Your task to perform on an android device: Open Reddit.com Image 0: 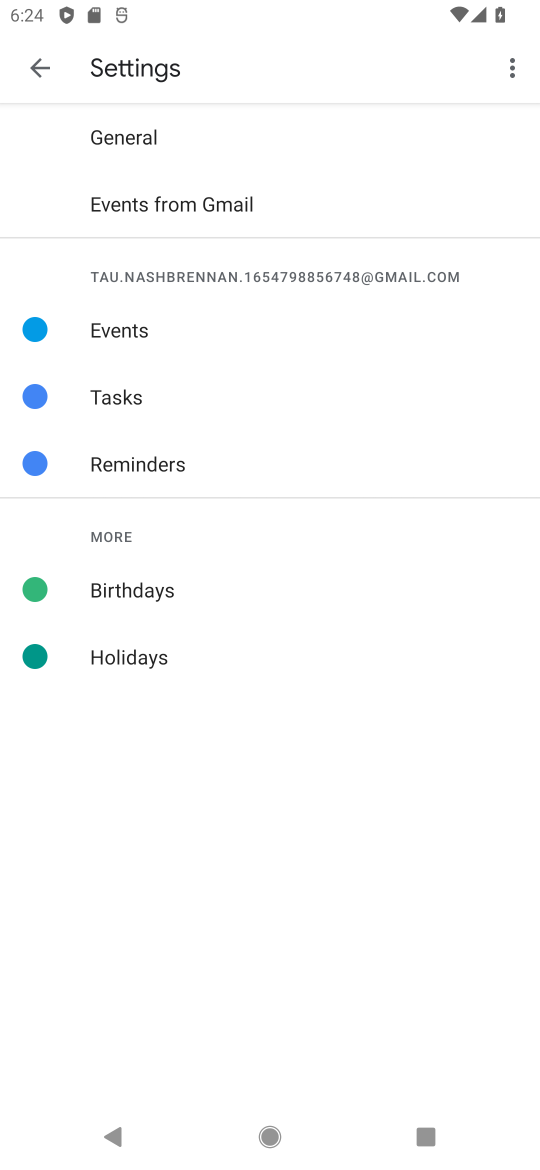
Step 0: press home button
Your task to perform on an android device: Open Reddit.com Image 1: 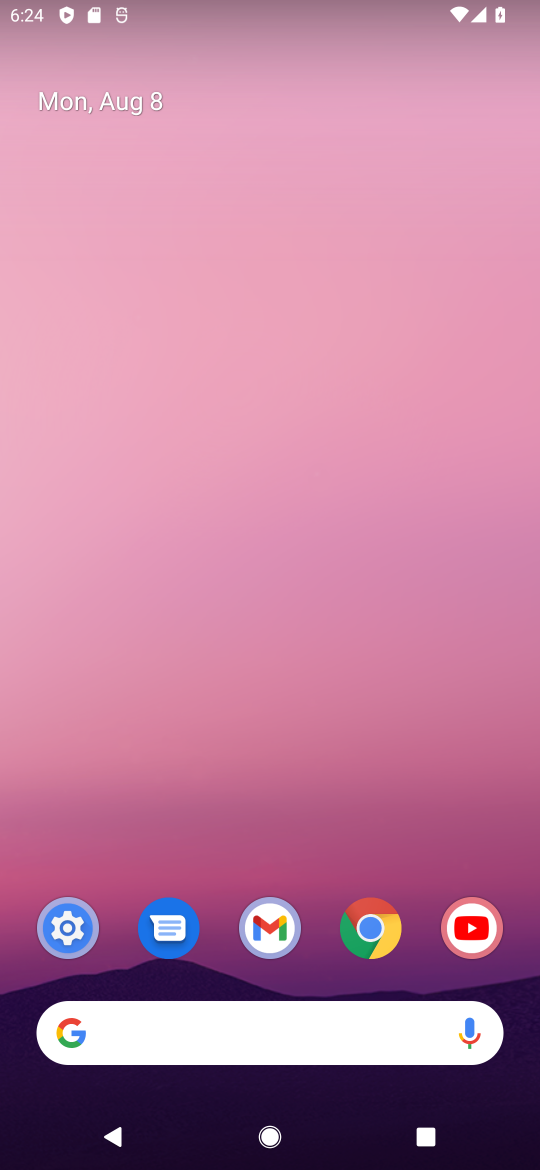
Step 1: click (372, 935)
Your task to perform on an android device: Open Reddit.com Image 2: 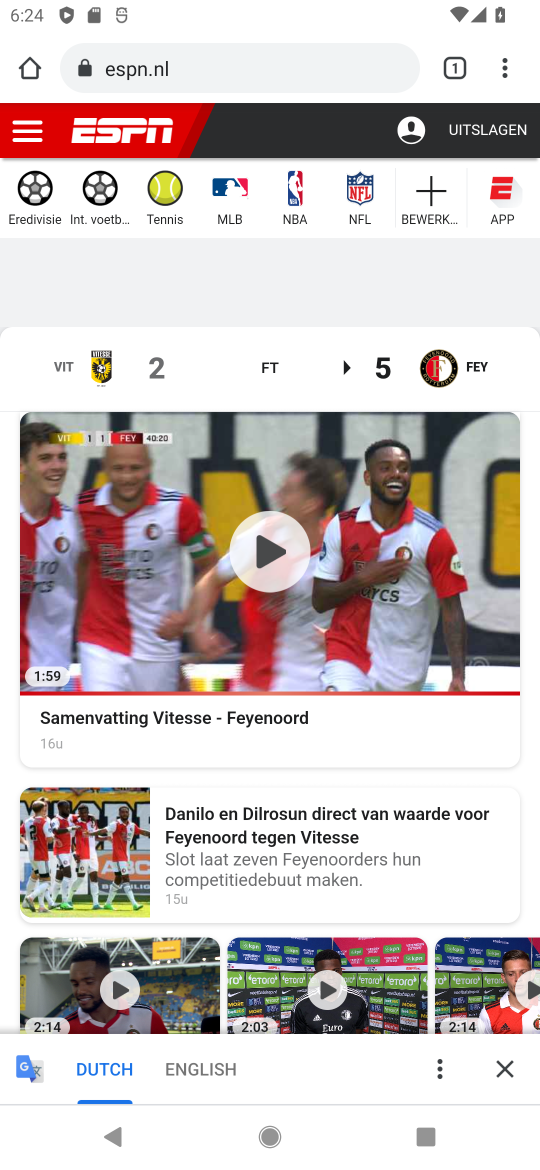
Step 2: click (236, 64)
Your task to perform on an android device: Open Reddit.com Image 3: 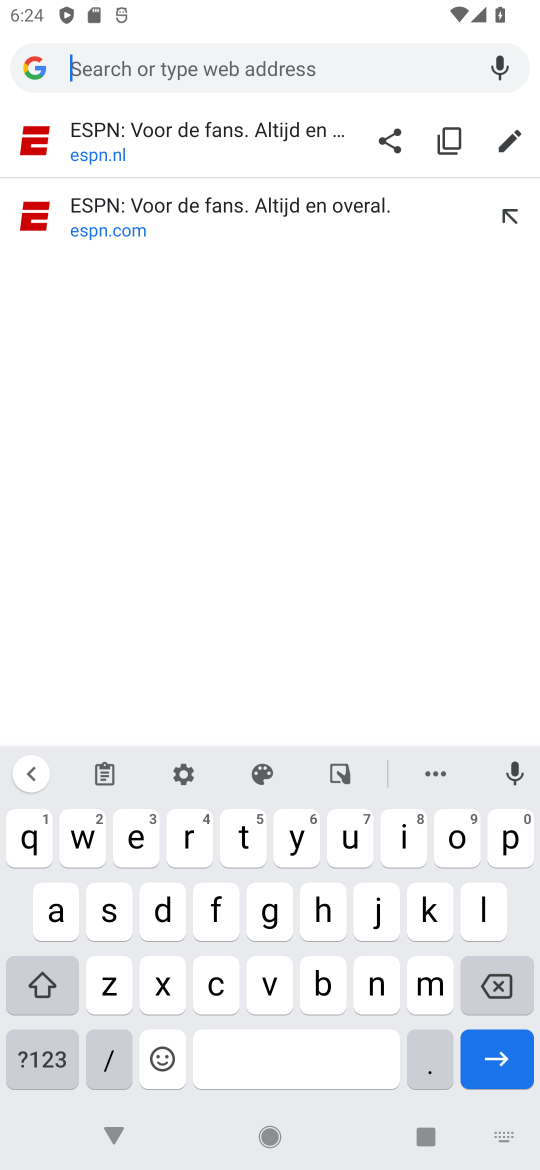
Step 3: click (181, 840)
Your task to perform on an android device: Open Reddit.com Image 4: 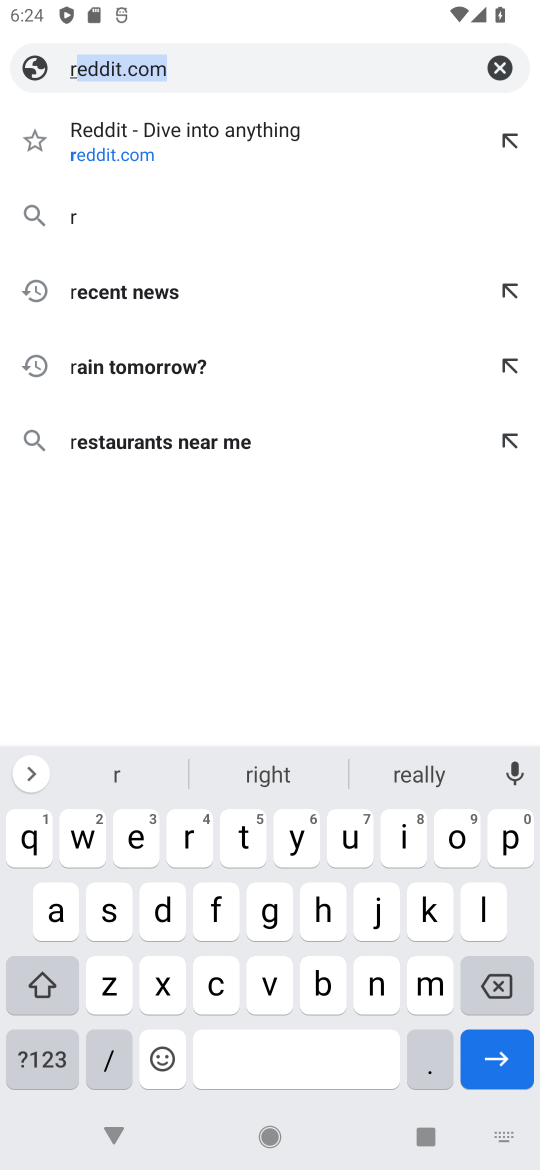
Step 4: click (224, 75)
Your task to perform on an android device: Open Reddit.com Image 5: 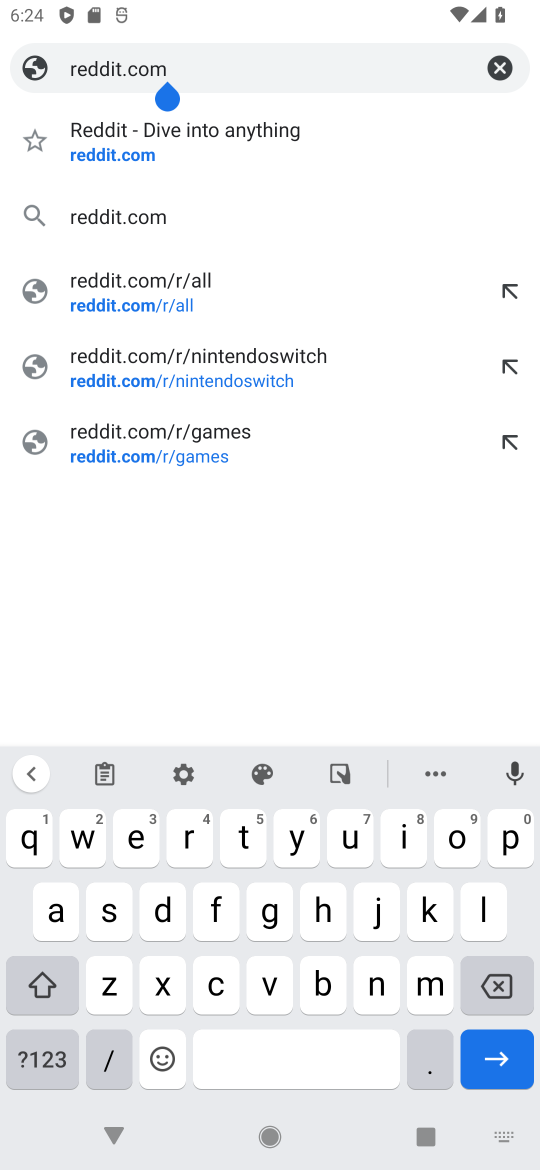
Step 5: click (498, 1058)
Your task to perform on an android device: Open Reddit.com Image 6: 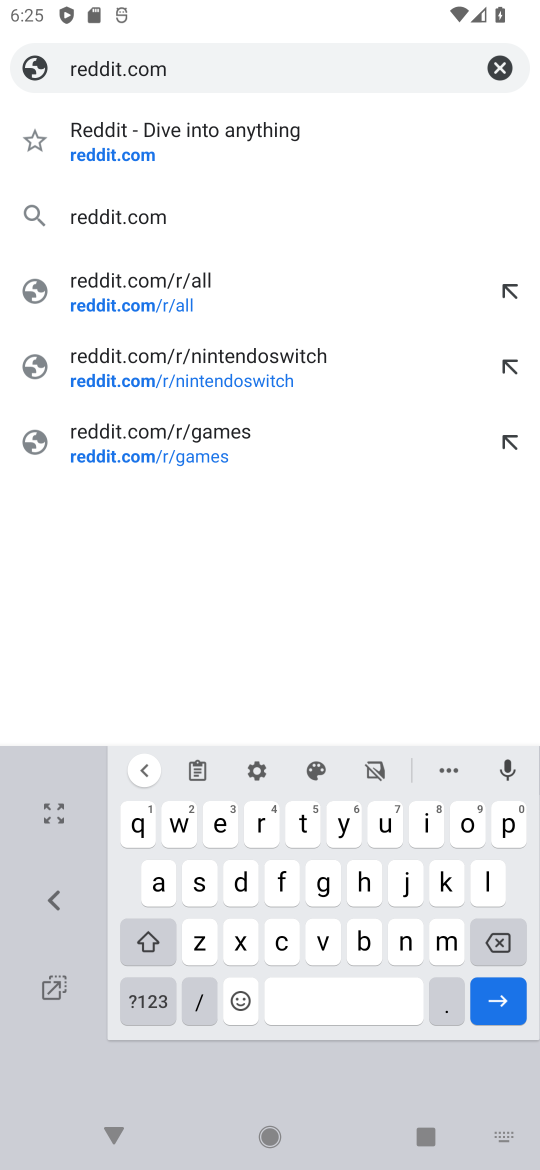
Step 6: click (50, 820)
Your task to perform on an android device: Open Reddit.com Image 7: 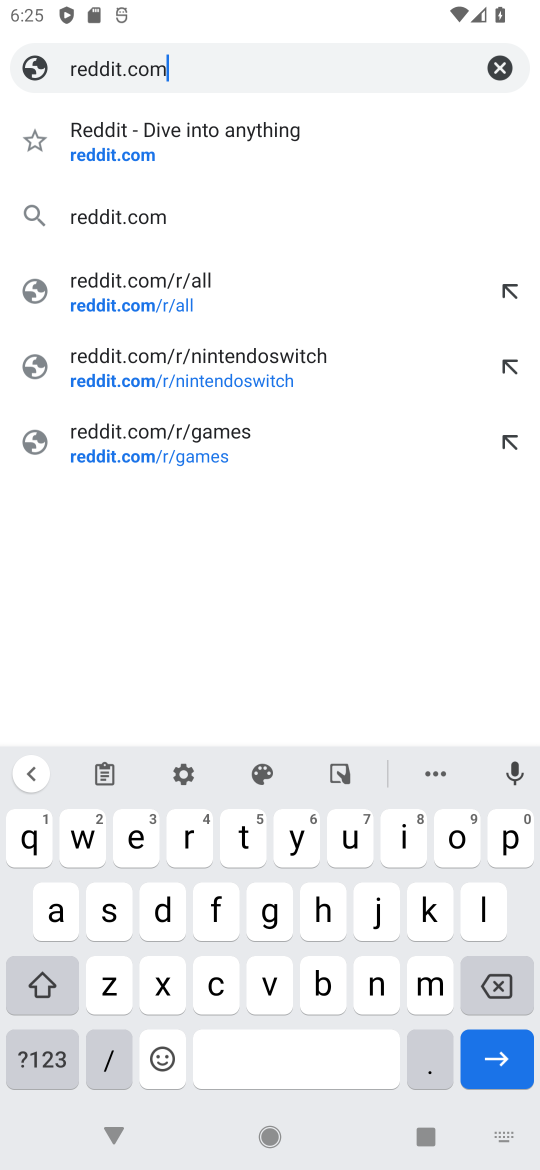
Step 7: click (509, 1050)
Your task to perform on an android device: Open Reddit.com Image 8: 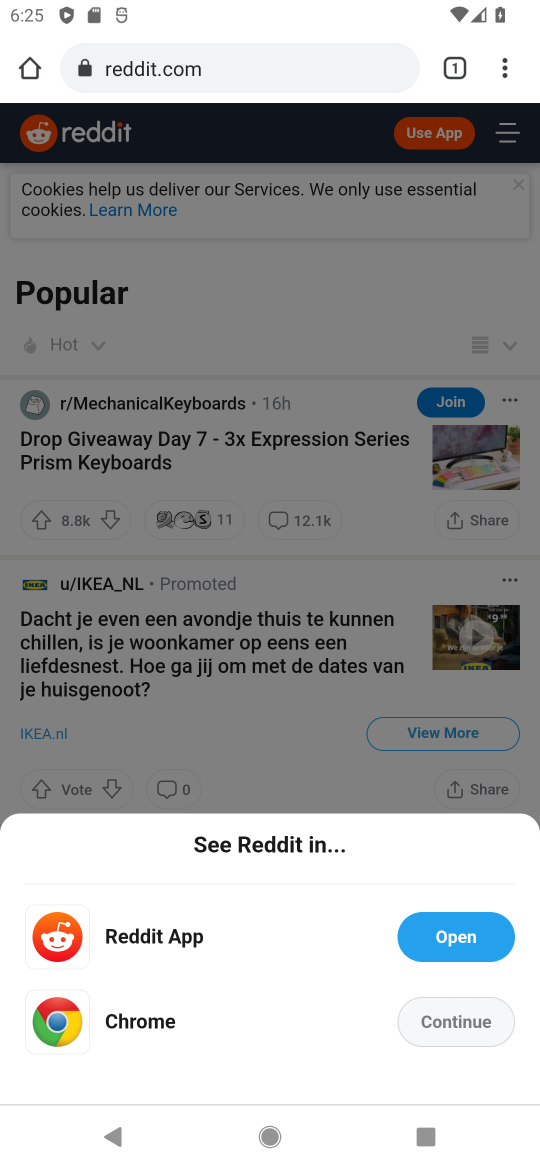
Step 8: click (454, 1020)
Your task to perform on an android device: Open Reddit.com Image 9: 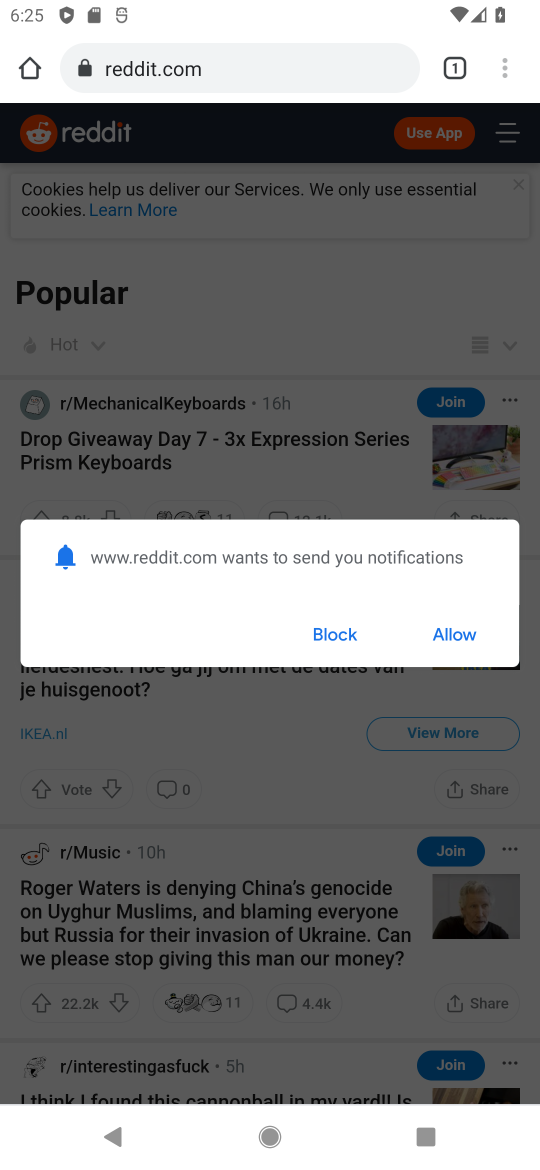
Step 9: click (324, 626)
Your task to perform on an android device: Open Reddit.com Image 10: 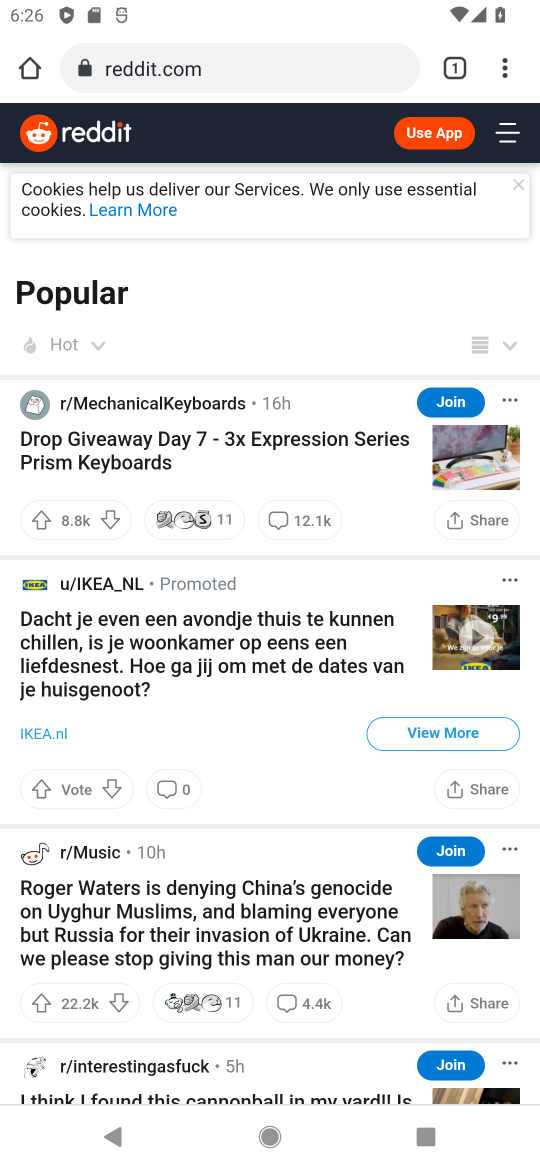
Step 10: task complete